Your task to perform on an android device: Open maps Image 0: 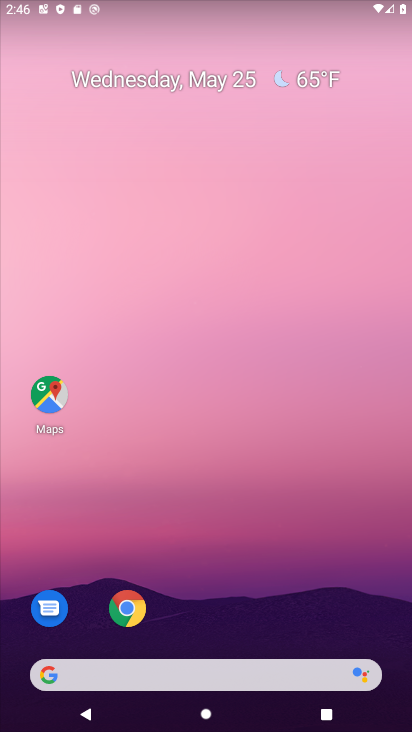
Step 0: click (48, 398)
Your task to perform on an android device: Open maps Image 1: 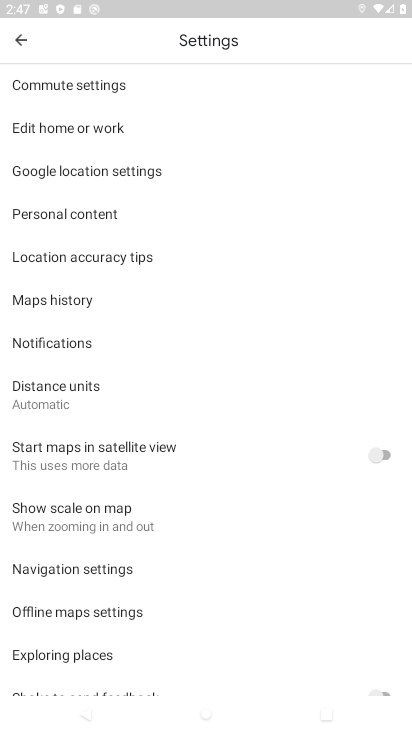
Step 1: click (12, 40)
Your task to perform on an android device: Open maps Image 2: 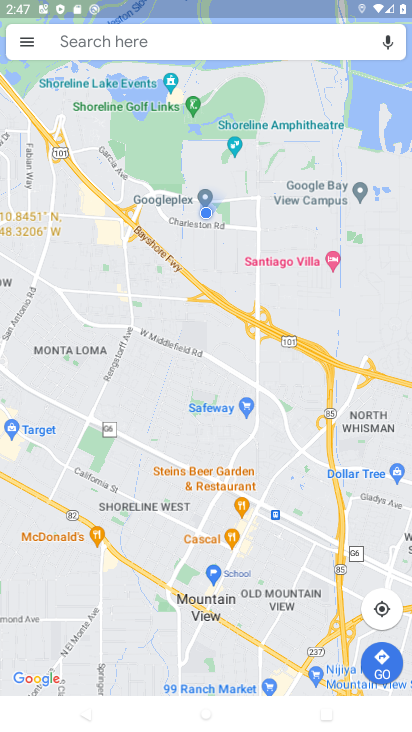
Step 2: task complete